Your task to perform on an android device: see tabs open on other devices in the chrome app Image 0: 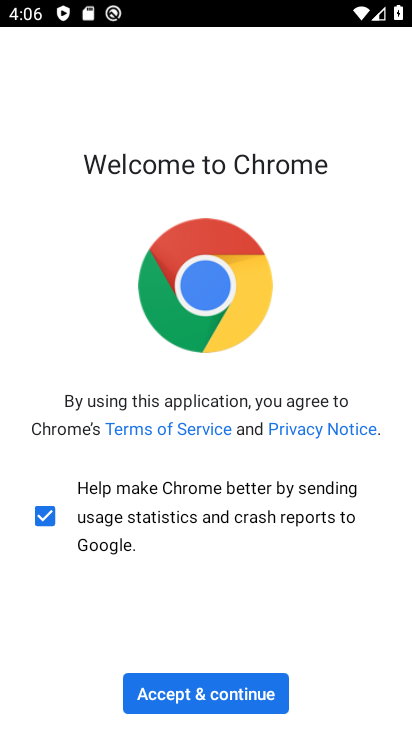
Step 0: click (212, 699)
Your task to perform on an android device: see tabs open on other devices in the chrome app Image 1: 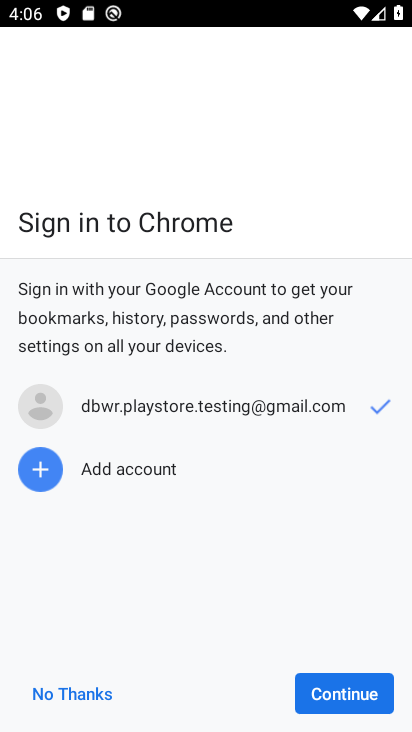
Step 1: click (66, 696)
Your task to perform on an android device: see tabs open on other devices in the chrome app Image 2: 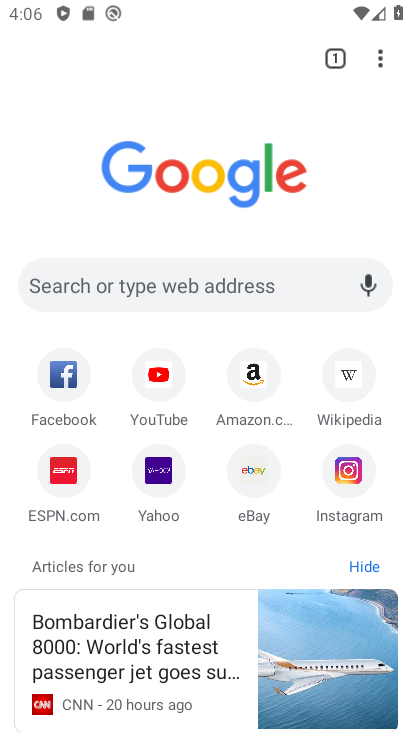
Step 2: click (381, 60)
Your task to perform on an android device: see tabs open on other devices in the chrome app Image 3: 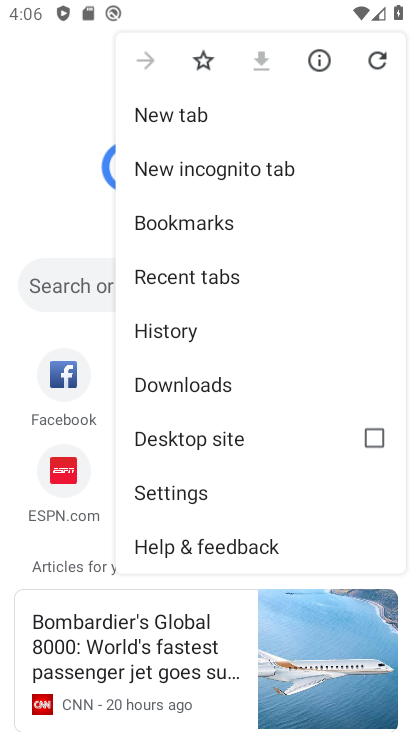
Step 3: click (174, 274)
Your task to perform on an android device: see tabs open on other devices in the chrome app Image 4: 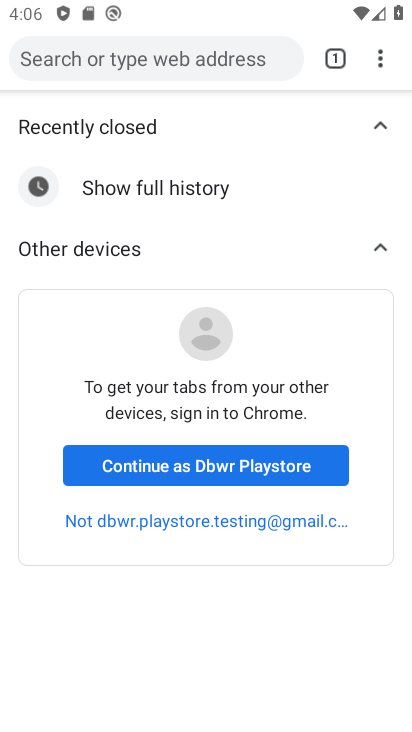
Step 4: click (177, 471)
Your task to perform on an android device: see tabs open on other devices in the chrome app Image 5: 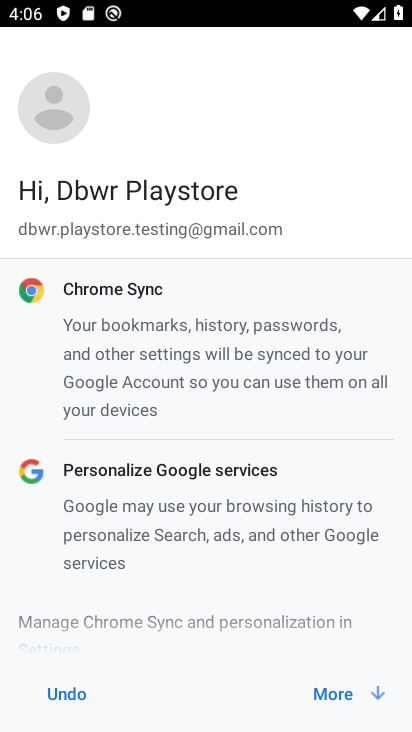
Step 5: click (331, 698)
Your task to perform on an android device: see tabs open on other devices in the chrome app Image 6: 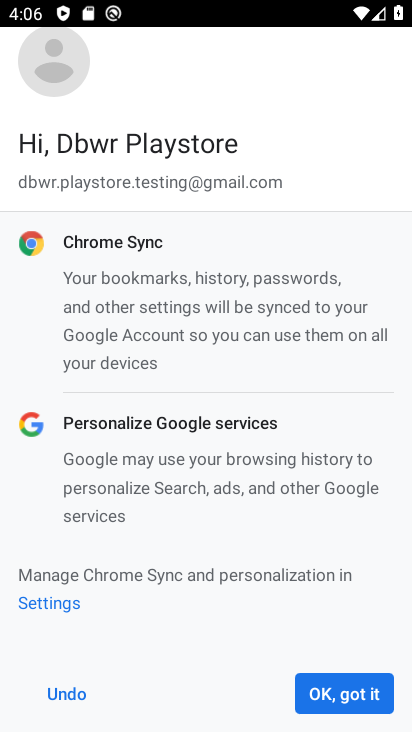
Step 6: click (331, 698)
Your task to perform on an android device: see tabs open on other devices in the chrome app Image 7: 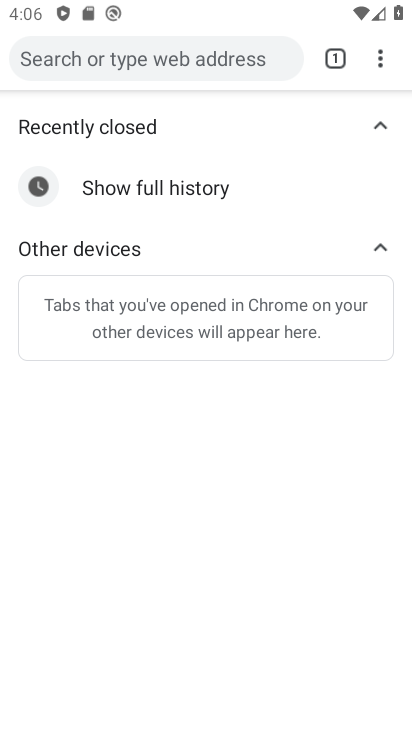
Step 7: task complete